Your task to perform on an android device: toggle priority inbox in the gmail app Image 0: 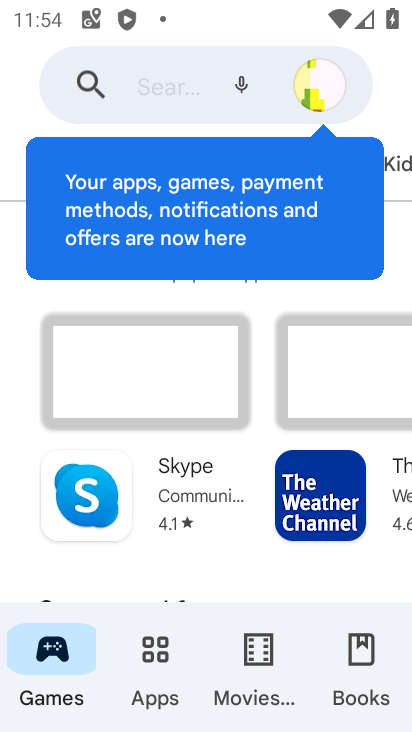
Step 0: press back button
Your task to perform on an android device: toggle priority inbox in the gmail app Image 1: 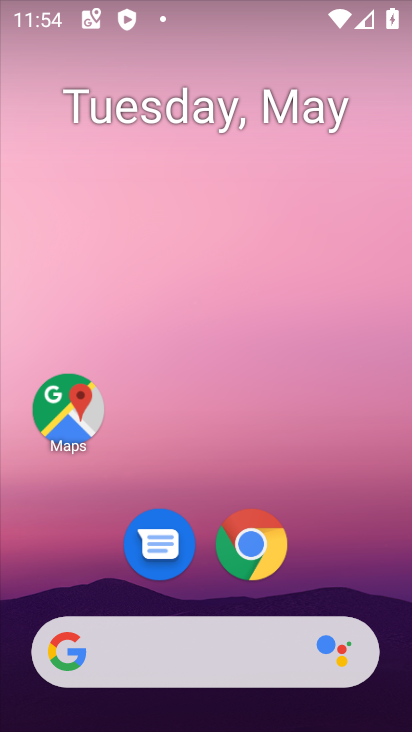
Step 1: drag from (310, 443) to (142, 75)
Your task to perform on an android device: toggle priority inbox in the gmail app Image 2: 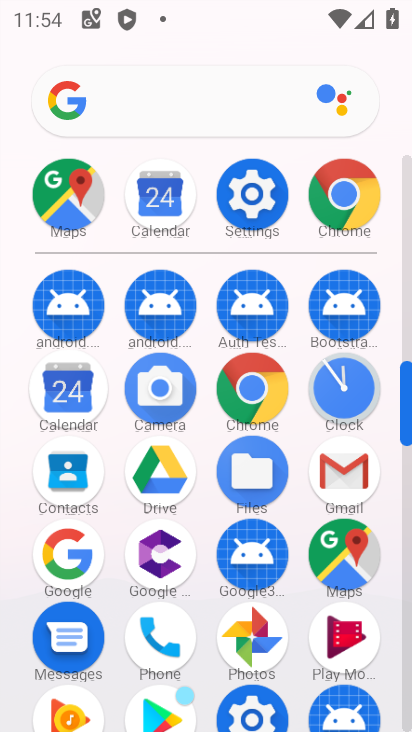
Step 2: click (342, 459)
Your task to perform on an android device: toggle priority inbox in the gmail app Image 3: 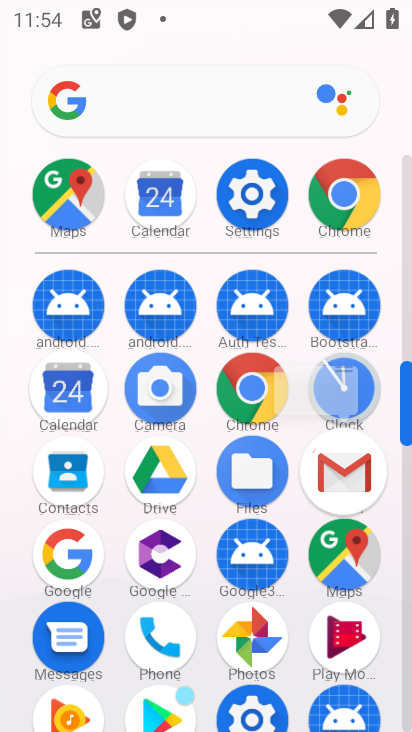
Step 3: click (342, 459)
Your task to perform on an android device: toggle priority inbox in the gmail app Image 4: 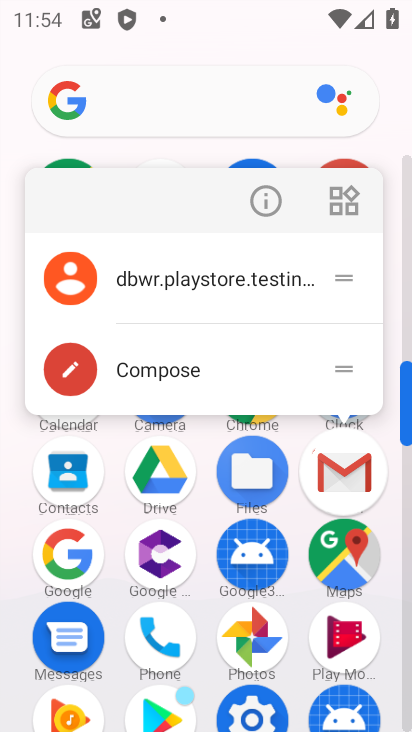
Step 4: click (343, 459)
Your task to perform on an android device: toggle priority inbox in the gmail app Image 5: 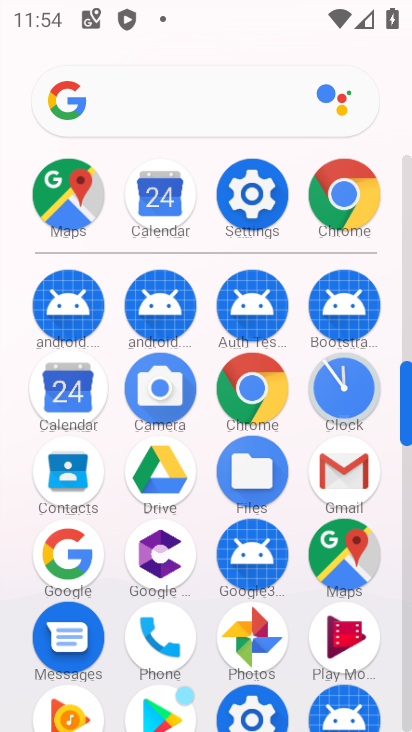
Step 5: click (345, 458)
Your task to perform on an android device: toggle priority inbox in the gmail app Image 6: 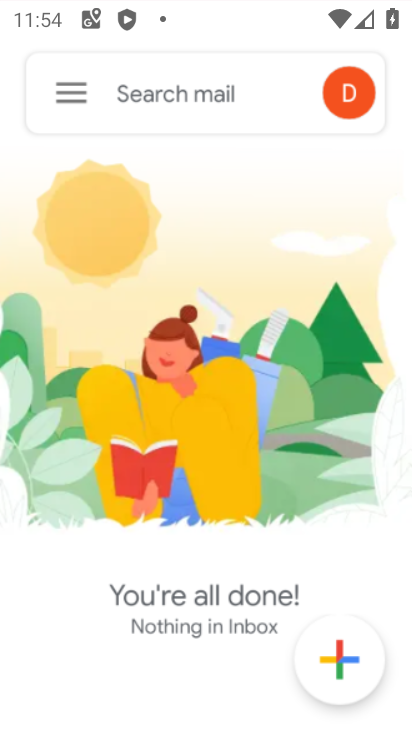
Step 6: click (355, 466)
Your task to perform on an android device: toggle priority inbox in the gmail app Image 7: 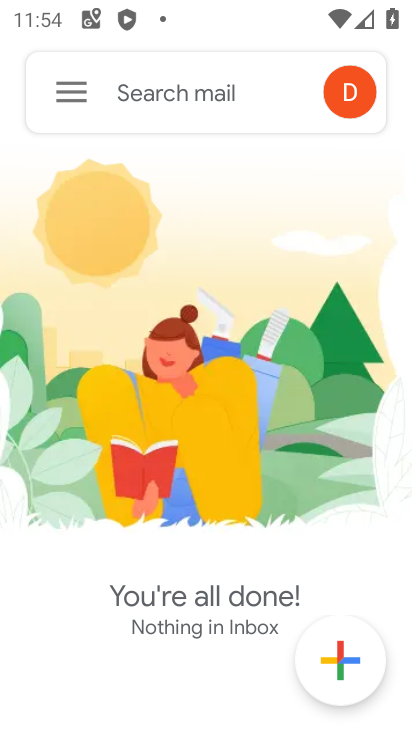
Step 7: click (65, 90)
Your task to perform on an android device: toggle priority inbox in the gmail app Image 8: 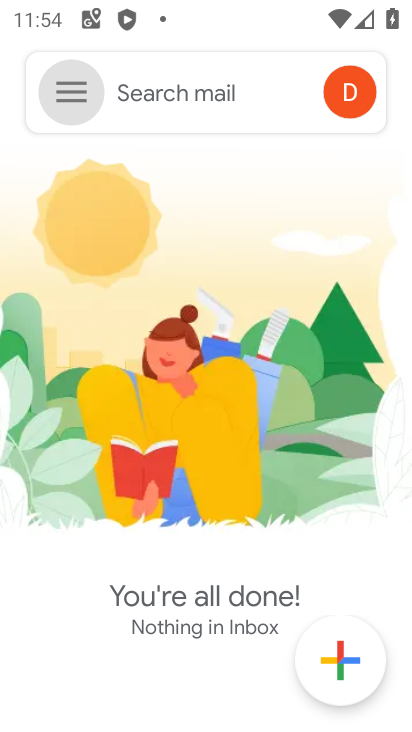
Step 8: click (65, 90)
Your task to perform on an android device: toggle priority inbox in the gmail app Image 9: 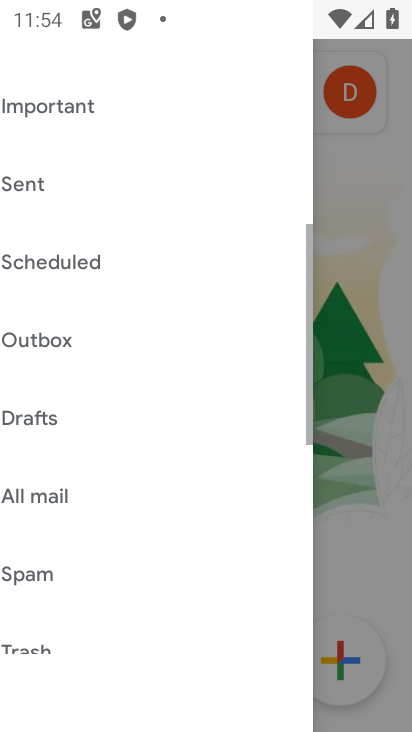
Step 9: click (65, 90)
Your task to perform on an android device: toggle priority inbox in the gmail app Image 10: 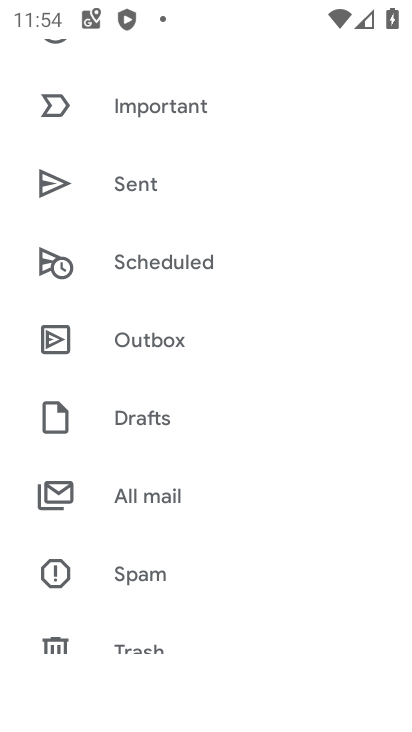
Step 10: click (65, 90)
Your task to perform on an android device: toggle priority inbox in the gmail app Image 11: 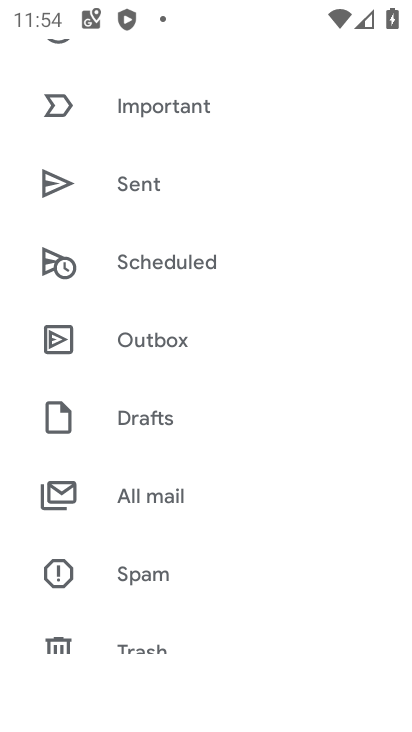
Step 11: drag from (167, 588) to (125, 189)
Your task to perform on an android device: toggle priority inbox in the gmail app Image 12: 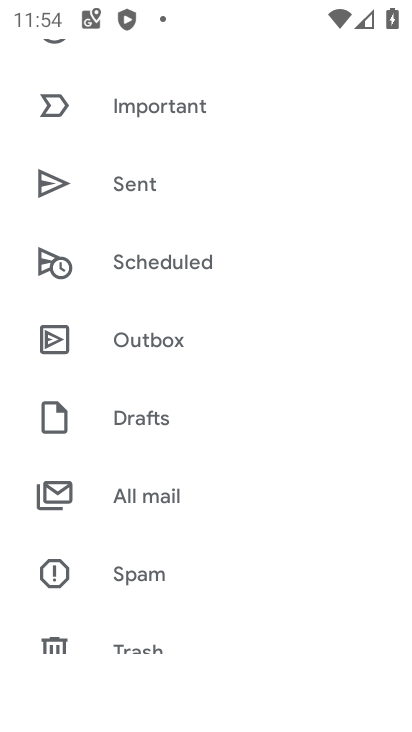
Step 12: drag from (199, 474) to (190, 139)
Your task to perform on an android device: toggle priority inbox in the gmail app Image 13: 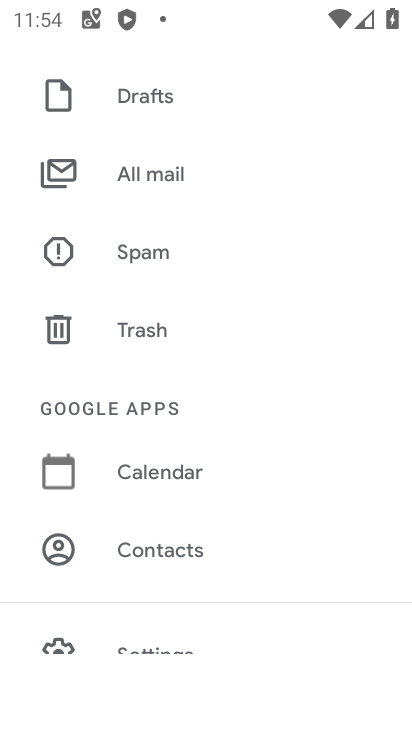
Step 13: drag from (196, 493) to (194, 230)
Your task to perform on an android device: toggle priority inbox in the gmail app Image 14: 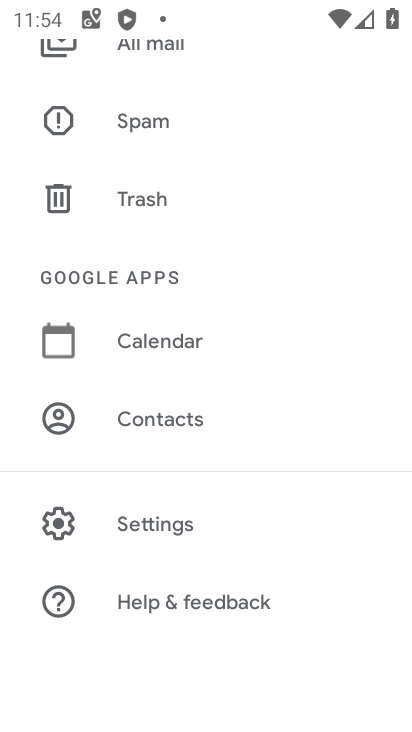
Step 14: click (154, 531)
Your task to perform on an android device: toggle priority inbox in the gmail app Image 15: 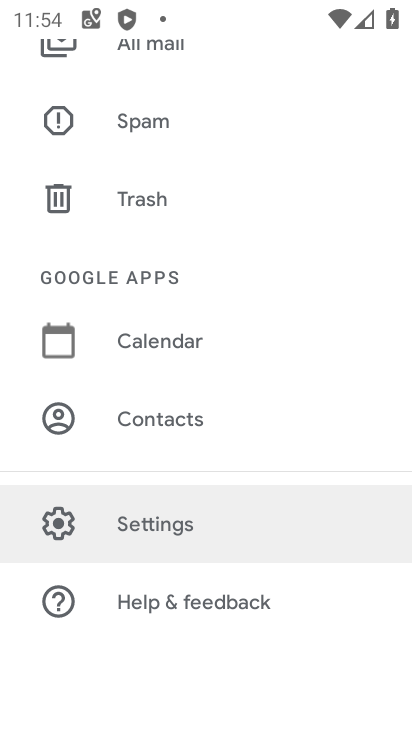
Step 15: click (154, 531)
Your task to perform on an android device: toggle priority inbox in the gmail app Image 16: 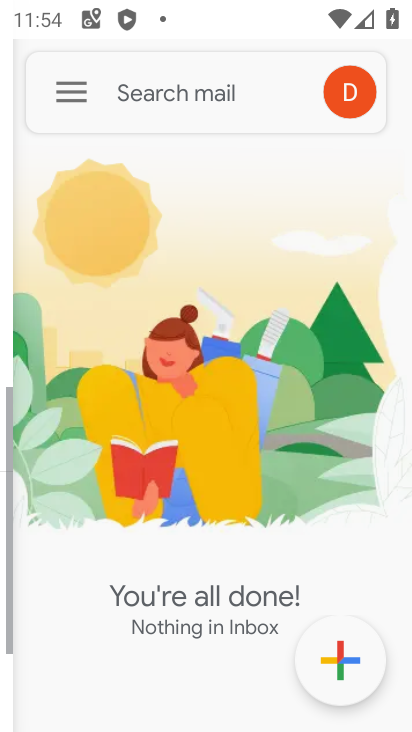
Step 16: click (153, 530)
Your task to perform on an android device: toggle priority inbox in the gmail app Image 17: 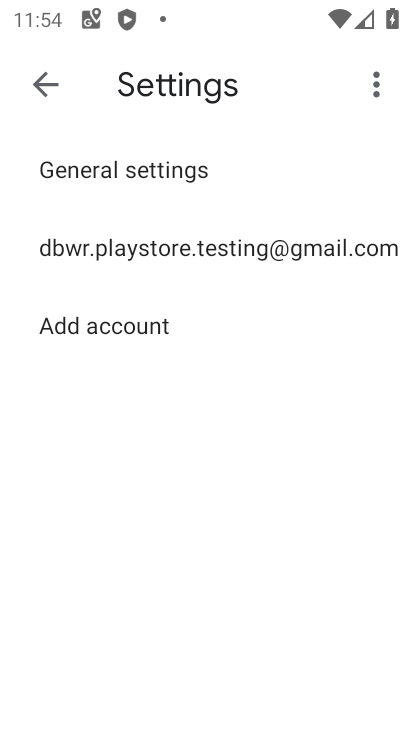
Step 17: click (150, 234)
Your task to perform on an android device: toggle priority inbox in the gmail app Image 18: 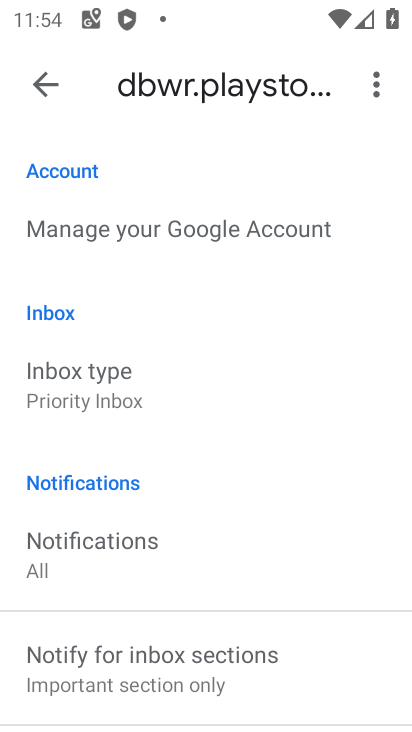
Step 18: task complete